Your task to perform on an android device: toggle wifi Image 0: 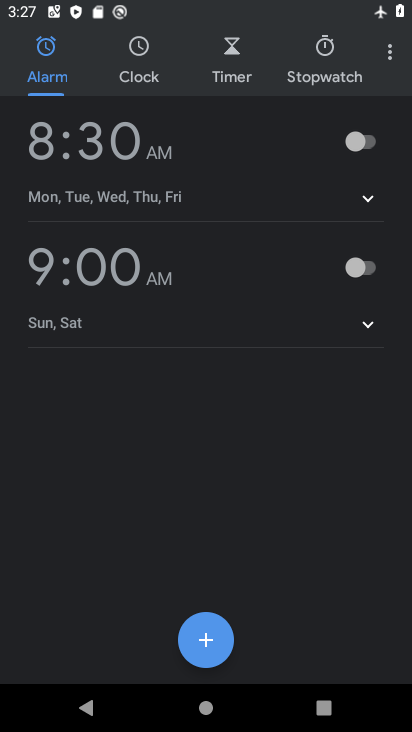
Step 0: press home button
Your task to perform on an android device: toggle wifi Image 1: 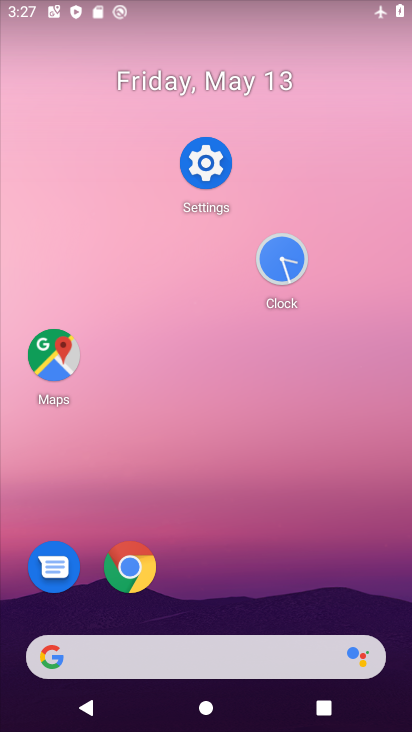
Step 1: click (206, 186)
Your task to perform on an android device: toggle wifi Image 2: 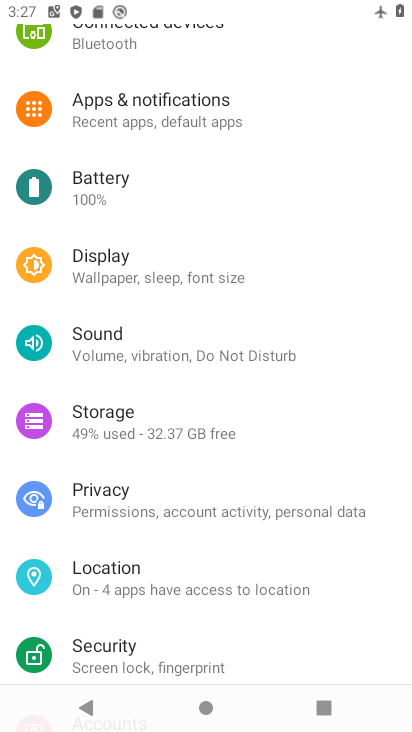
Step 2: drag from (152, 55) to (149, 309)
Your task to perform on an android device: toggle wifi Image 3: 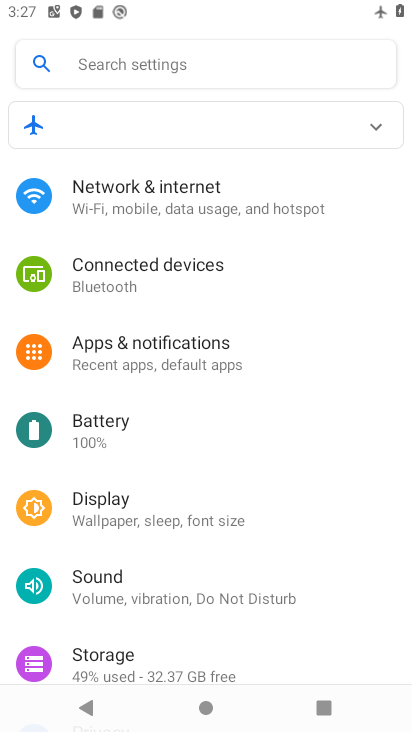
Step 3: click (186, 223)
Your task to perform on an android device: toggle wifi Image 4: 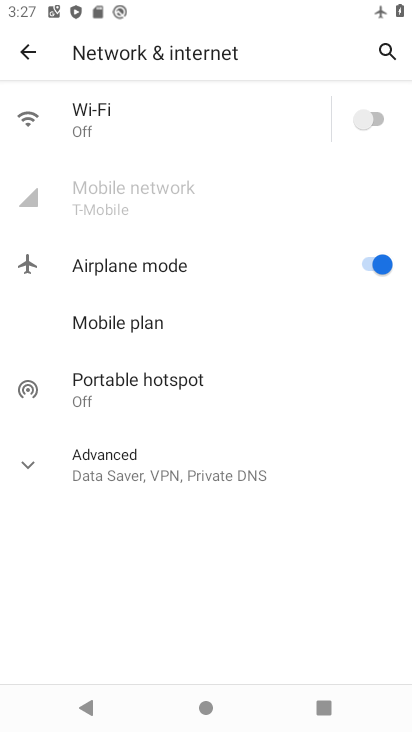
Step 4: task complete